Your task to perform on an android device: Search for Italian restaurants on Maps Image 0: 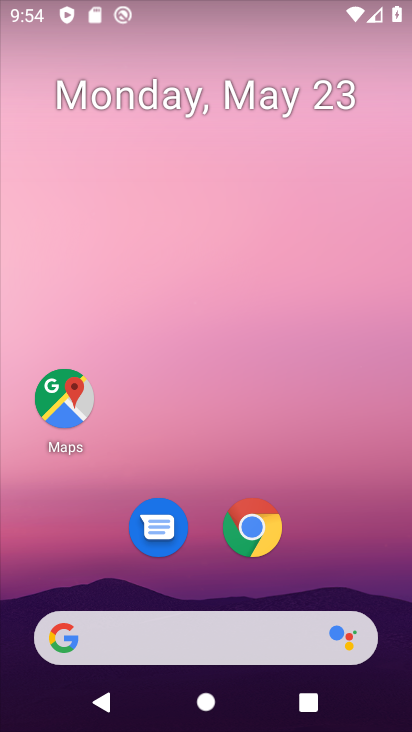
Step 0: click (54, 398)
Your task to perform on an android device: Search for Italian restaurants on Maps Image 1: 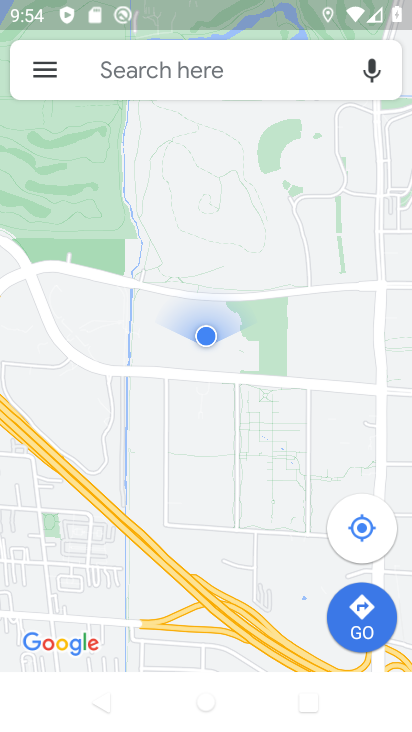
Step 1: click (209, 78)
Your task to perform on an android device: Search for Italian restaurants on Maps Image 2: 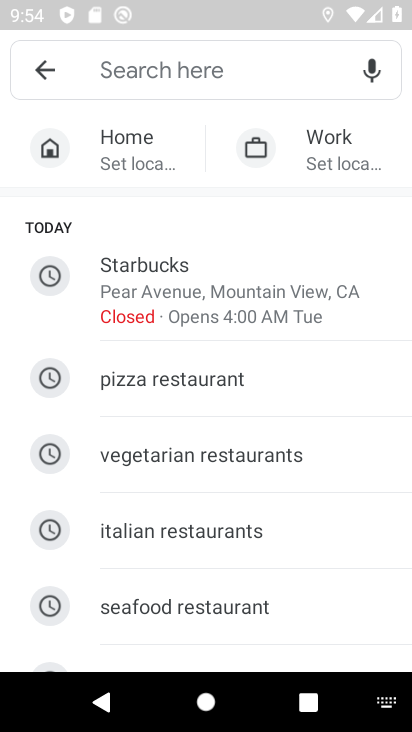
Step 2: click (226, 529)
Your task to perform on an android device: Search for Italian restaurants on Maps Image 3: 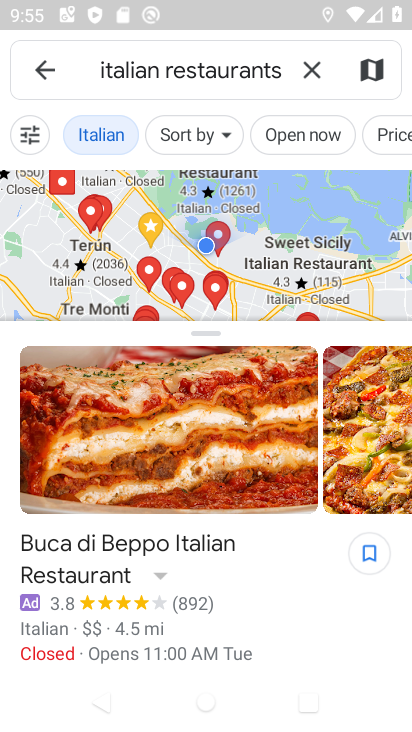
Step 3: task complete